Your task to perform on an android device: turn notification dots off Image 0: 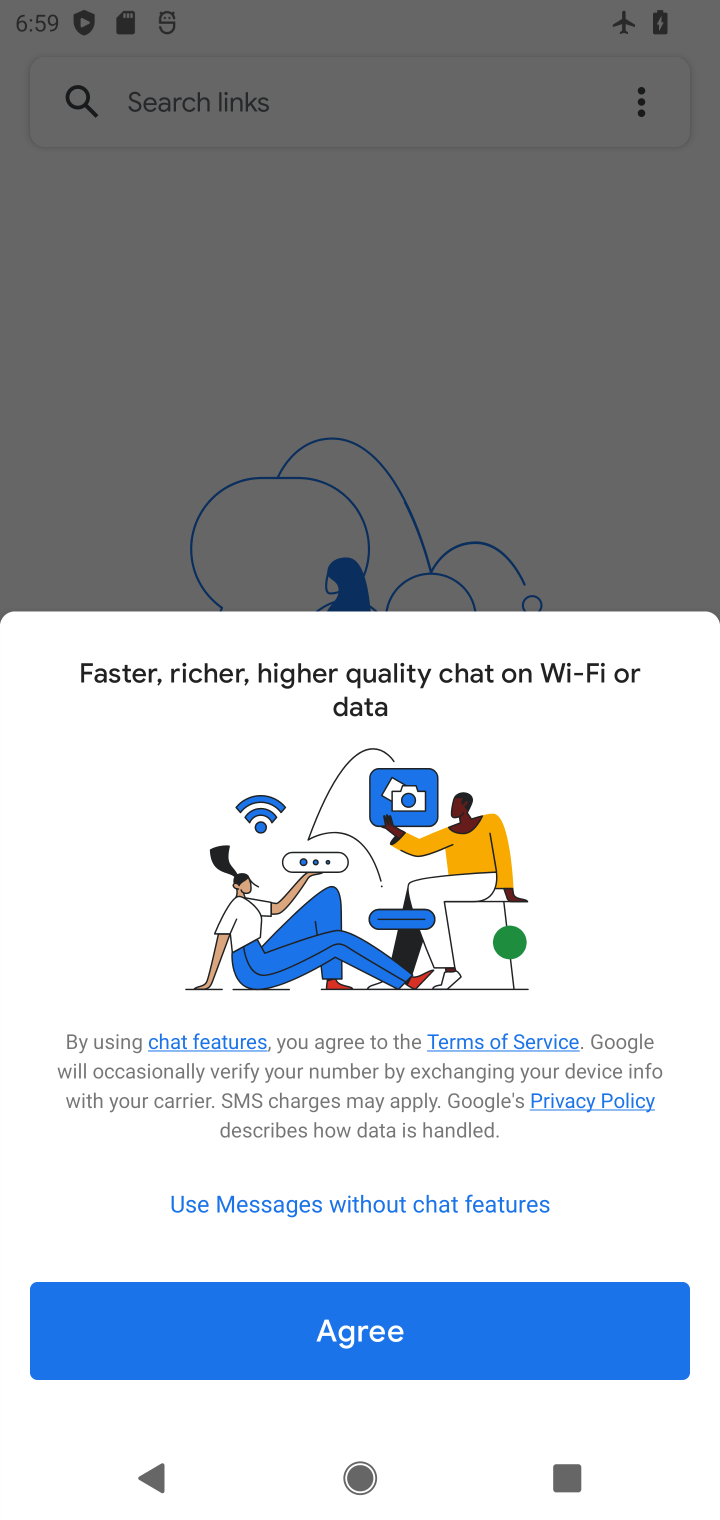
Step 0: press home button
Your task to perform on an android device: turn notification dots off Image 1: 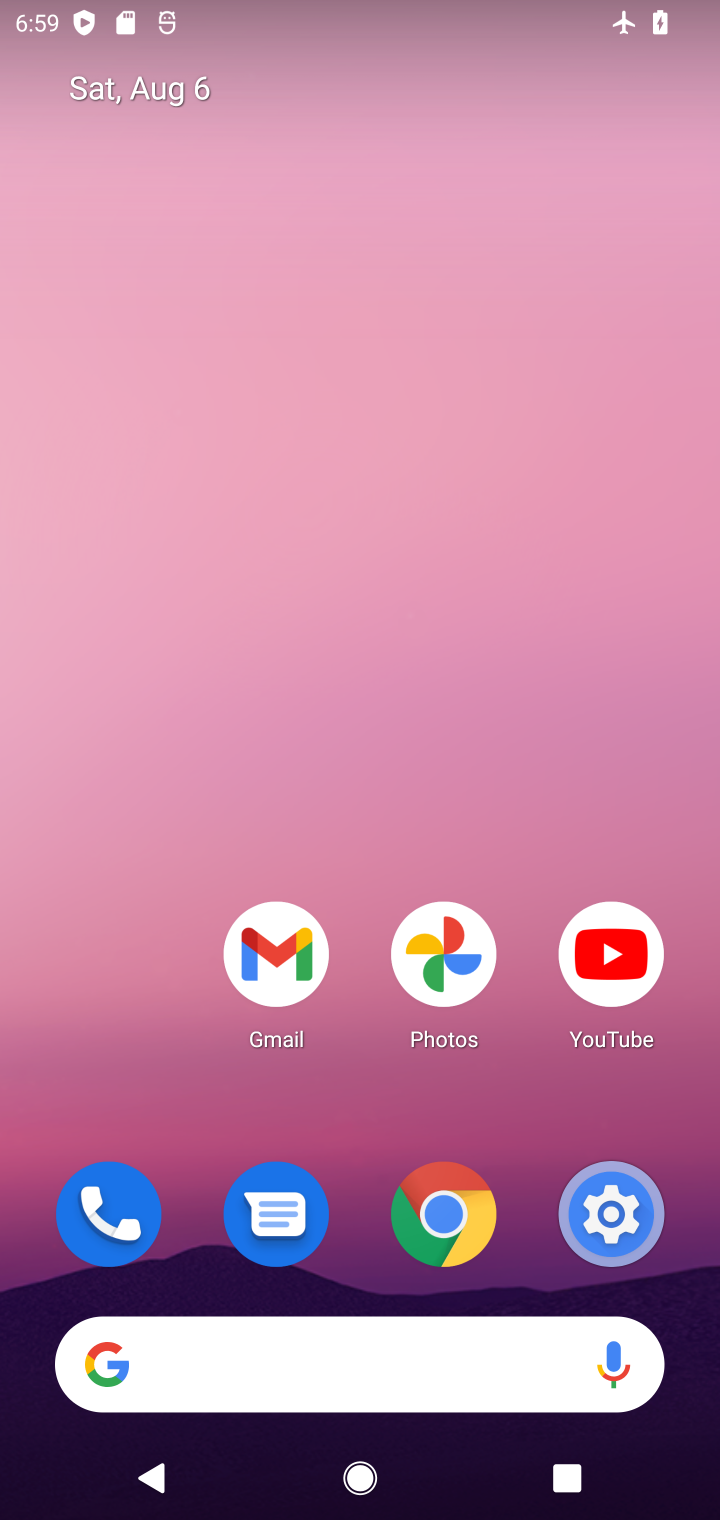
Step 1: click (588, 1223)
Your task to perform on an android device: turn notification dots off Image 2: 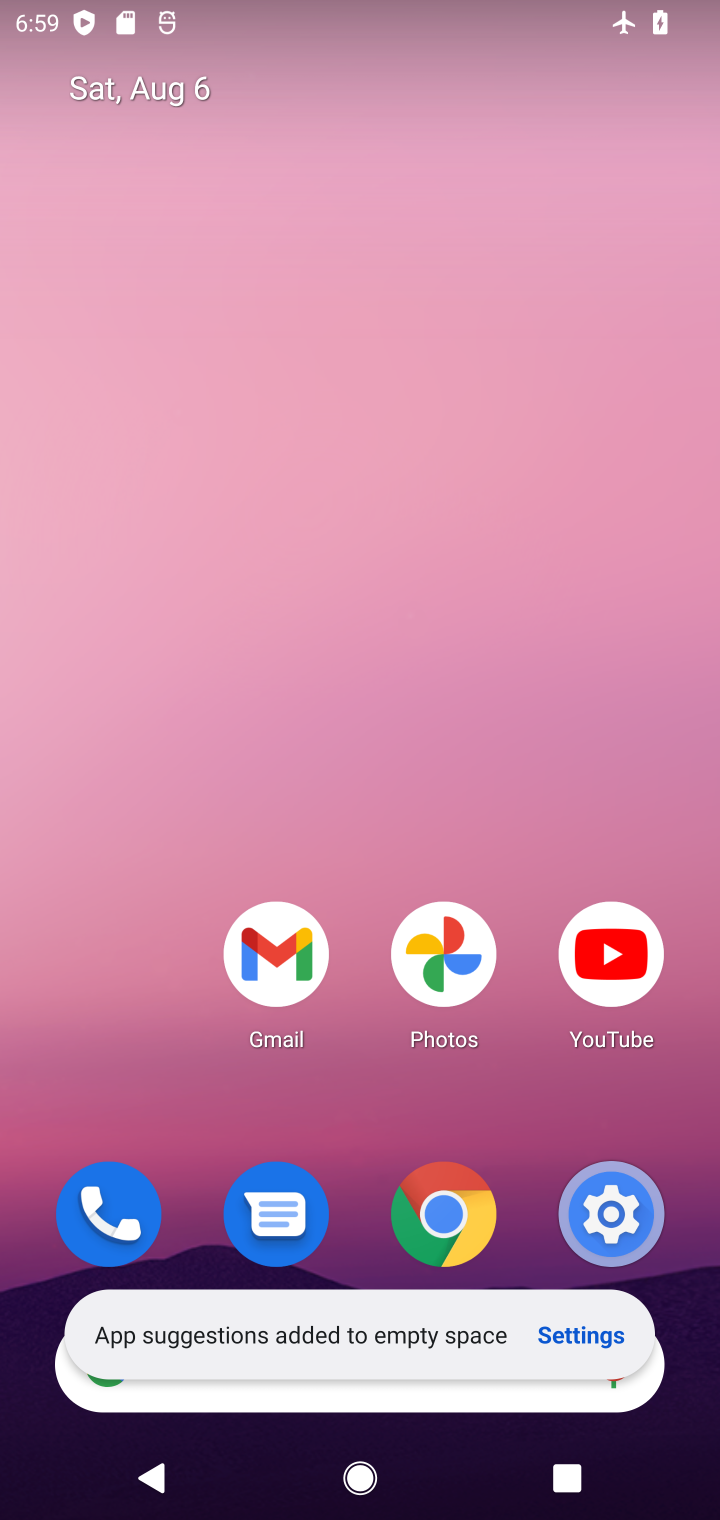
Step 2: click (657, 1197)
Your task to perform on an android device: turn notification dots off Image 3: 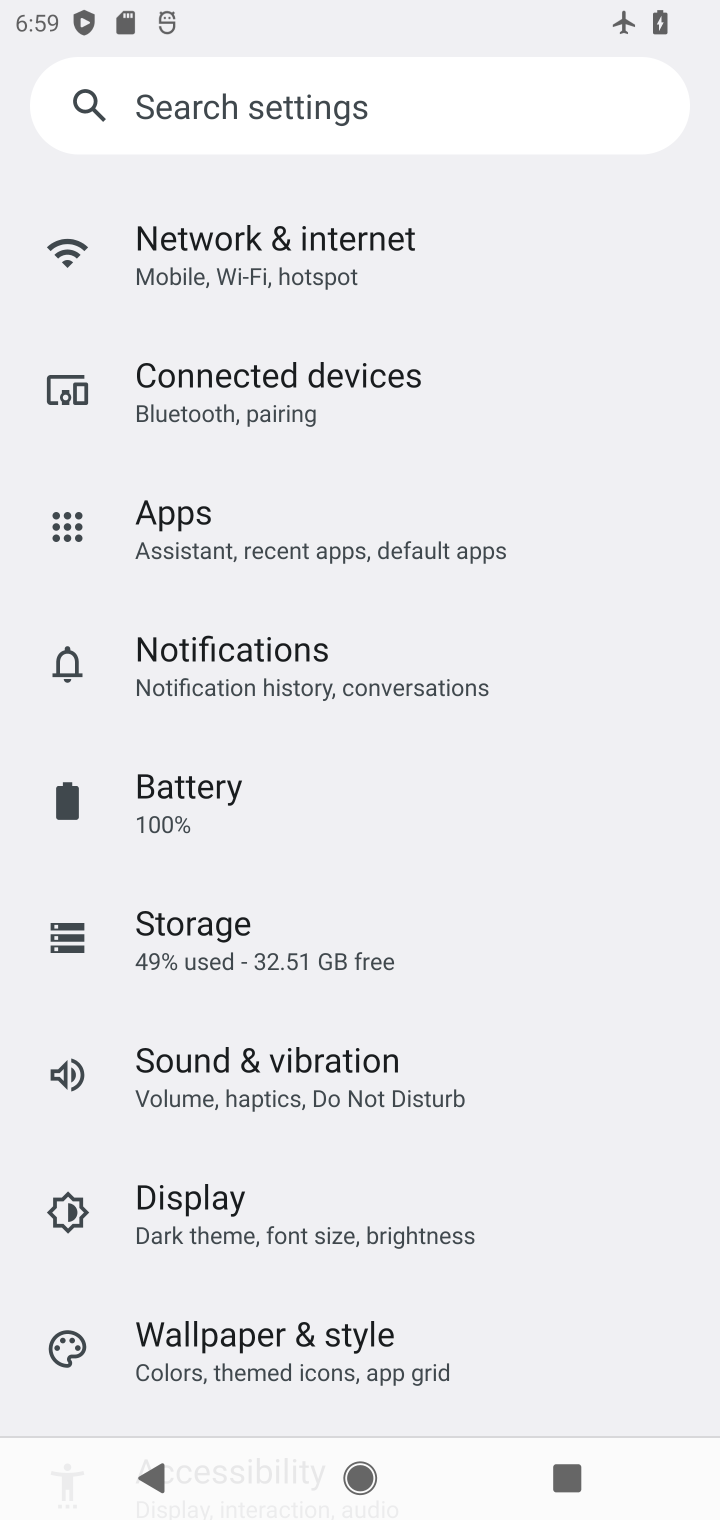
Step 3: click (319, 687)
Your task to perform on an android device: turn notification dots off Image 4: 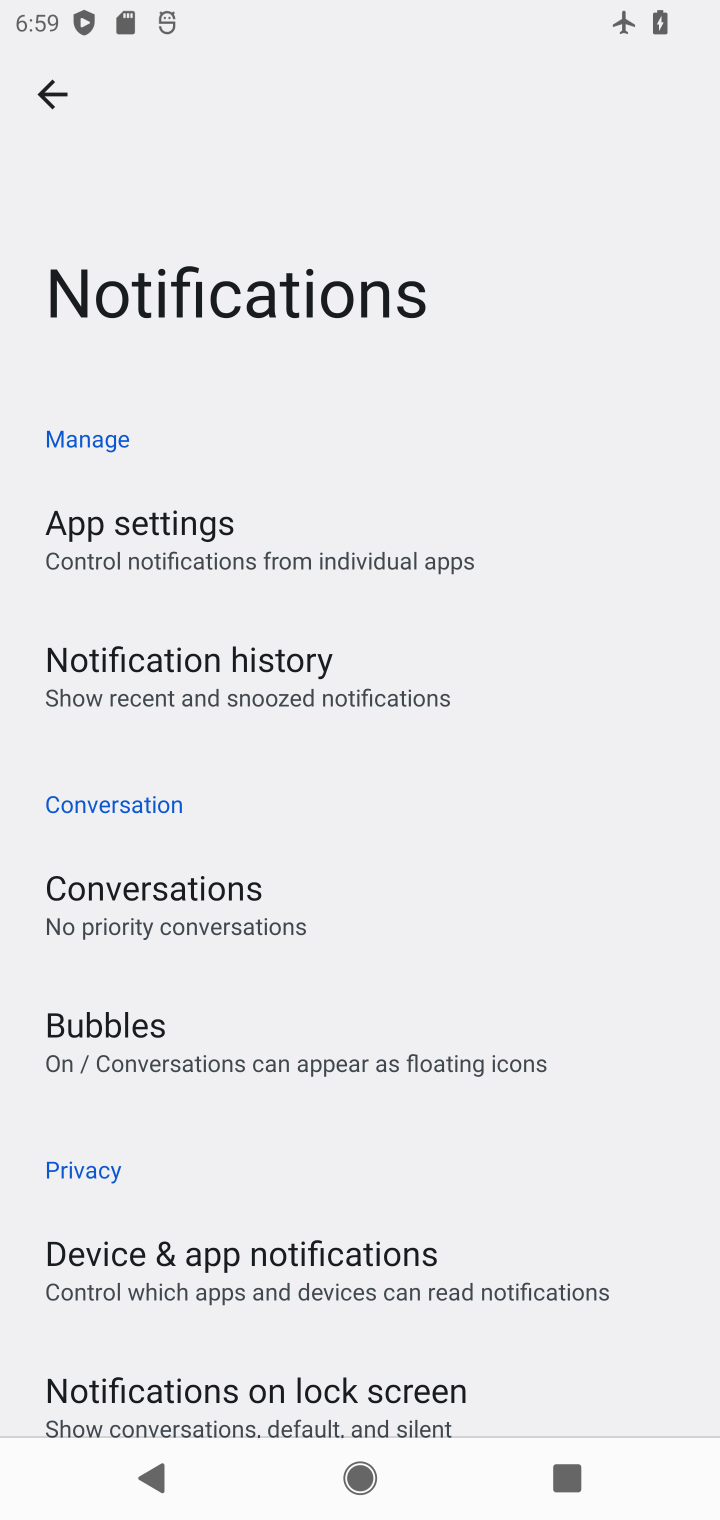
Step 4: drag from (256, 1248) to (337, 217)
Your task to perform on an android device: turn notification dots off Image 5: 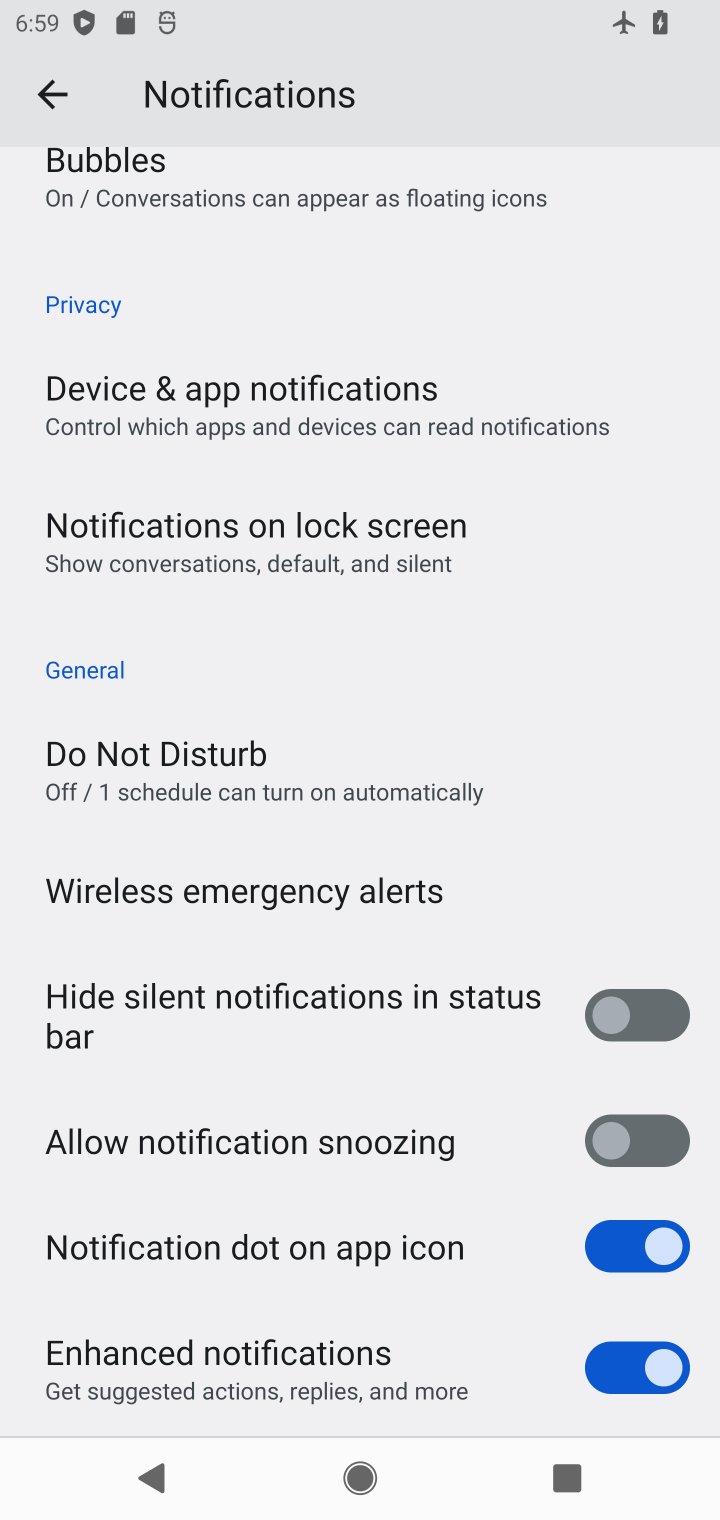
Step 5: drag from (294, 1127) to (380, 246)
Your task to perform on an android device: turn notification dots off Image 6: 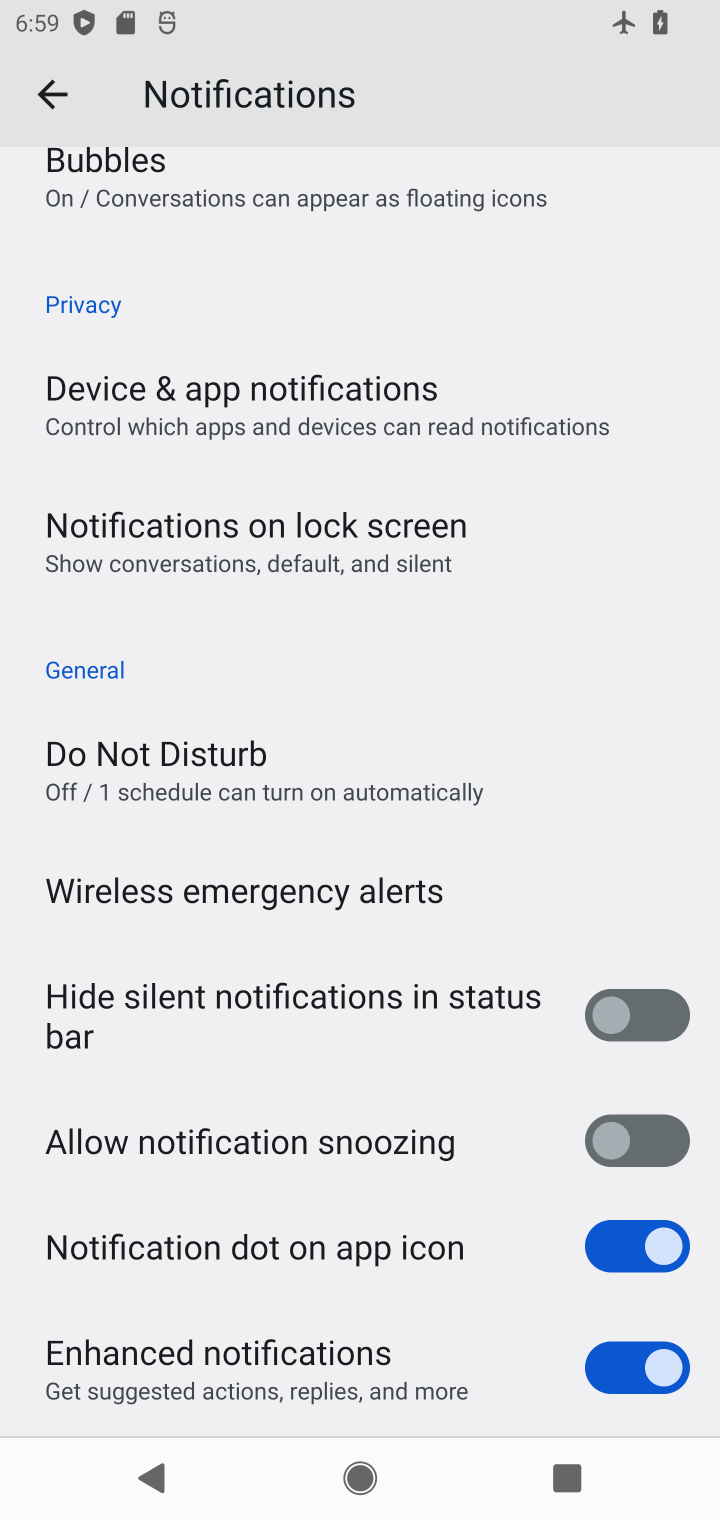
Step 6: click (589, 1254)
Your task to perform on an android device: turn notification dots off Image 7: 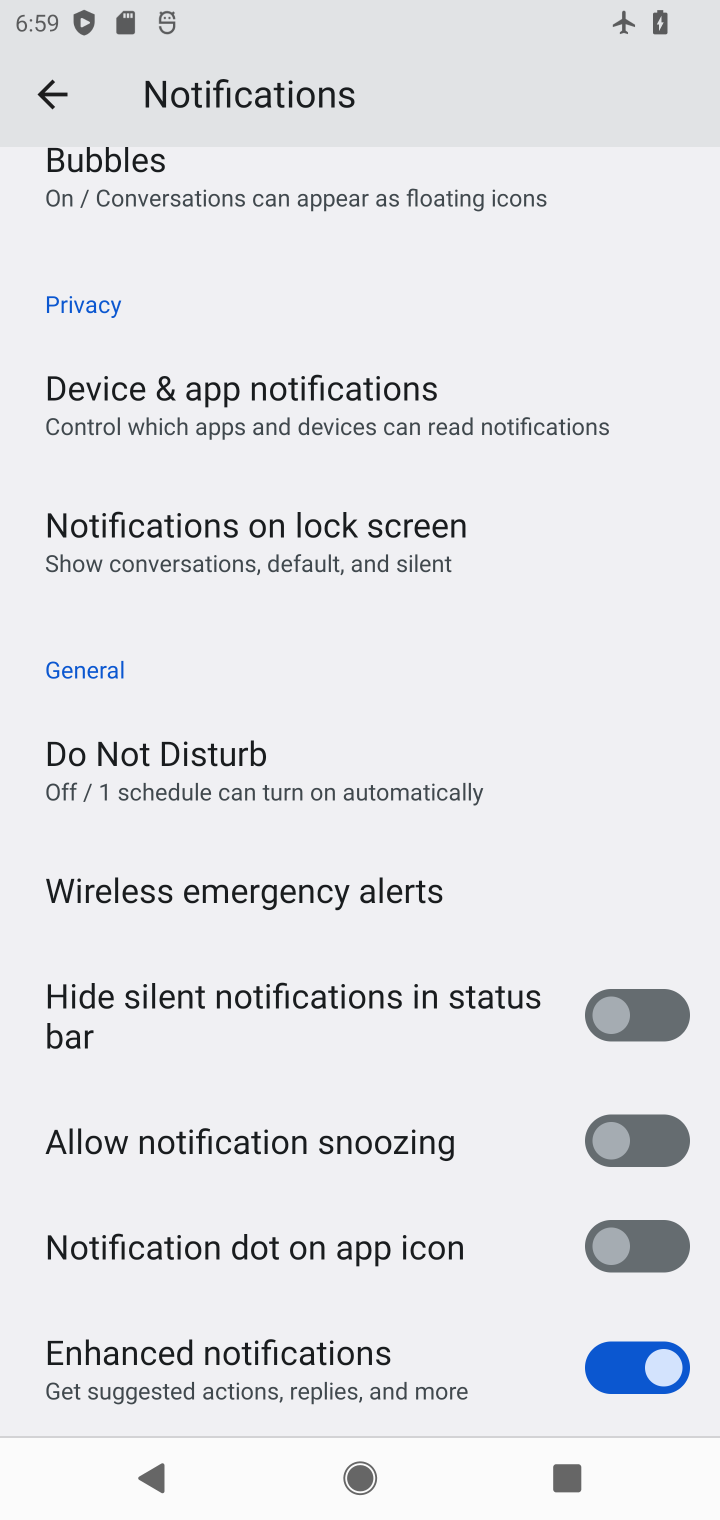
Step 7: task complete